Your task to perform on an android device: check google app version Image 0: 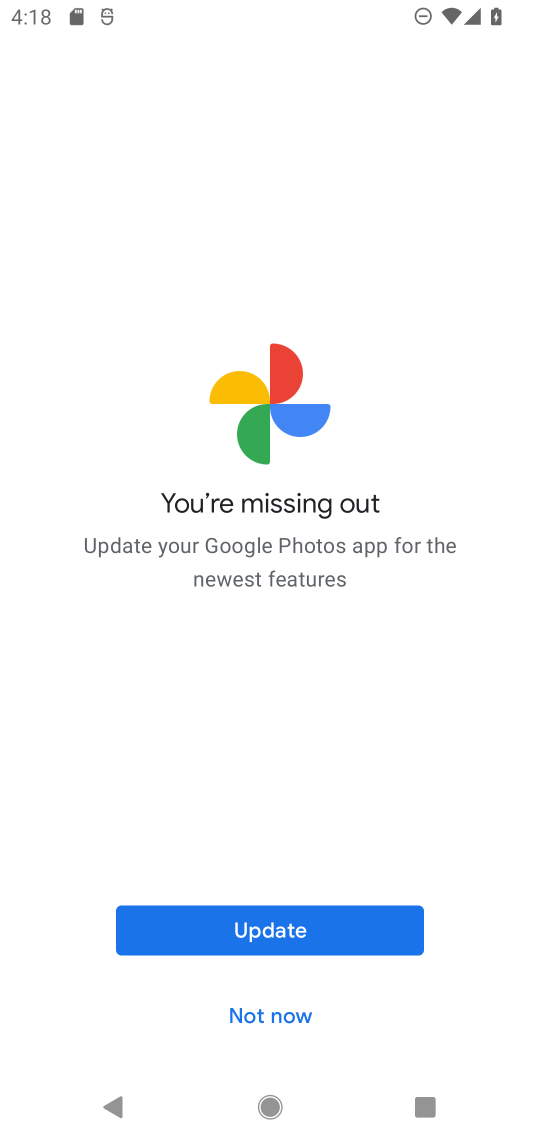
Step 0: press home button
Your task to perform on an android device: check google app version Image 1: 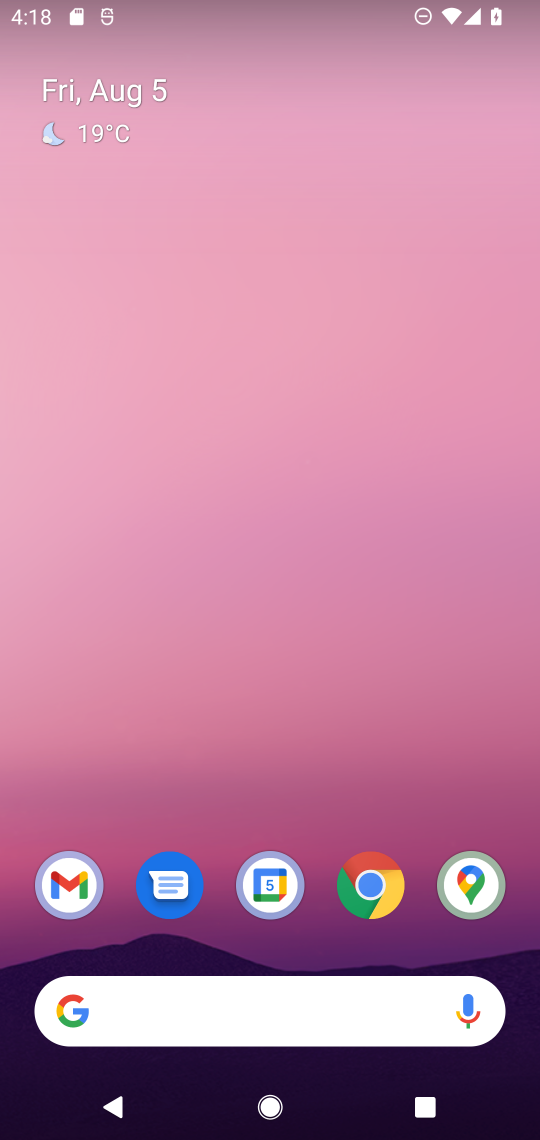
Step 1: drag from (312, 970) to (273, 72)
Your task to perform on an android device: check google app version Image 2: 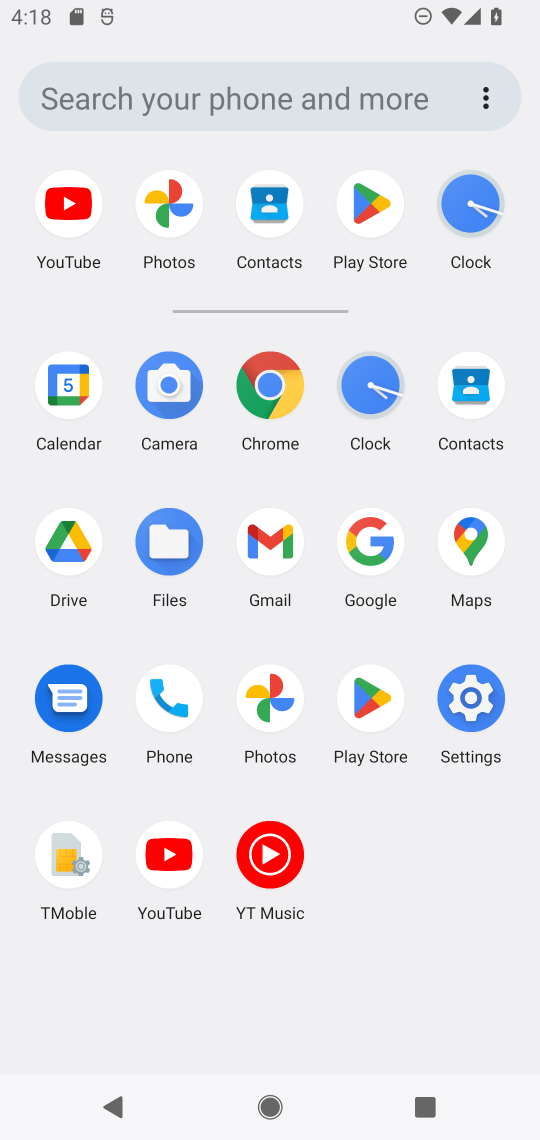
Step 2: click (368, 529)
Your task to perform on an android device: check google app version Image 3: 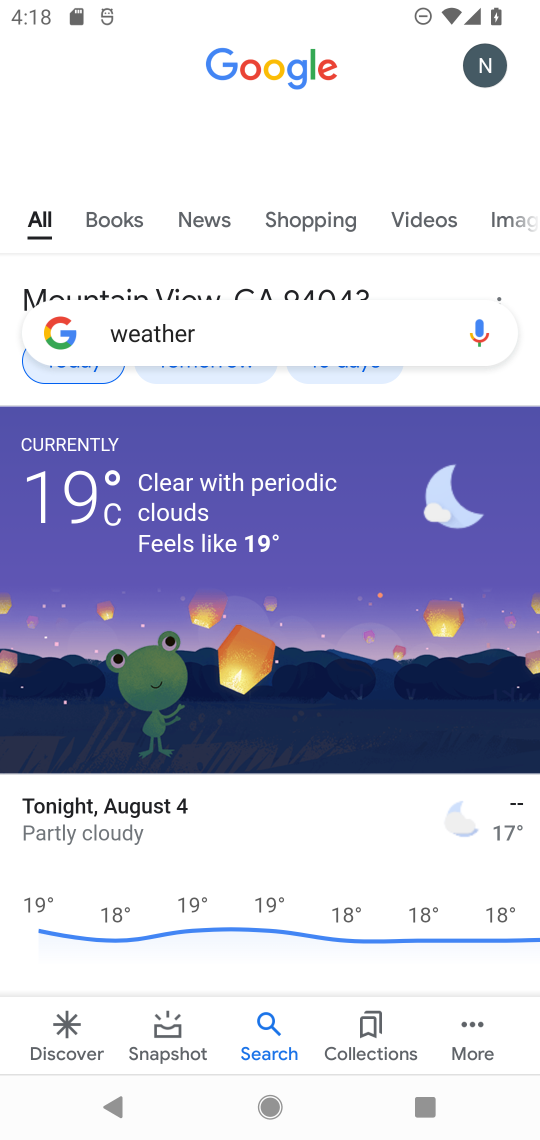
Step 3: click (466, 1022)
Your task to perform on an android device: check google app version Image 4: 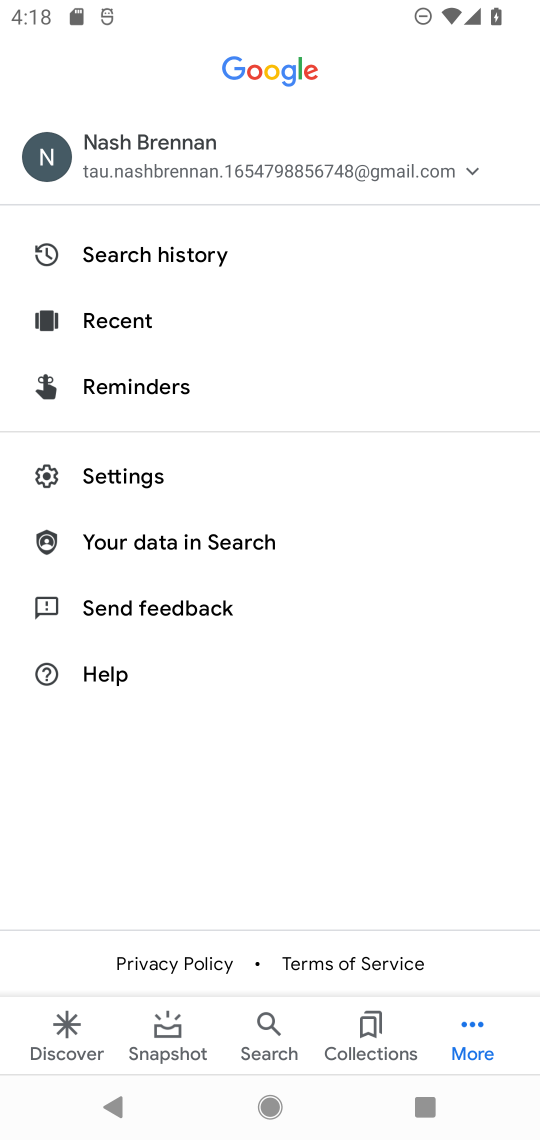
Step 4: click (138, 476)
Your task to perform on an android device: check google app version Image 5: 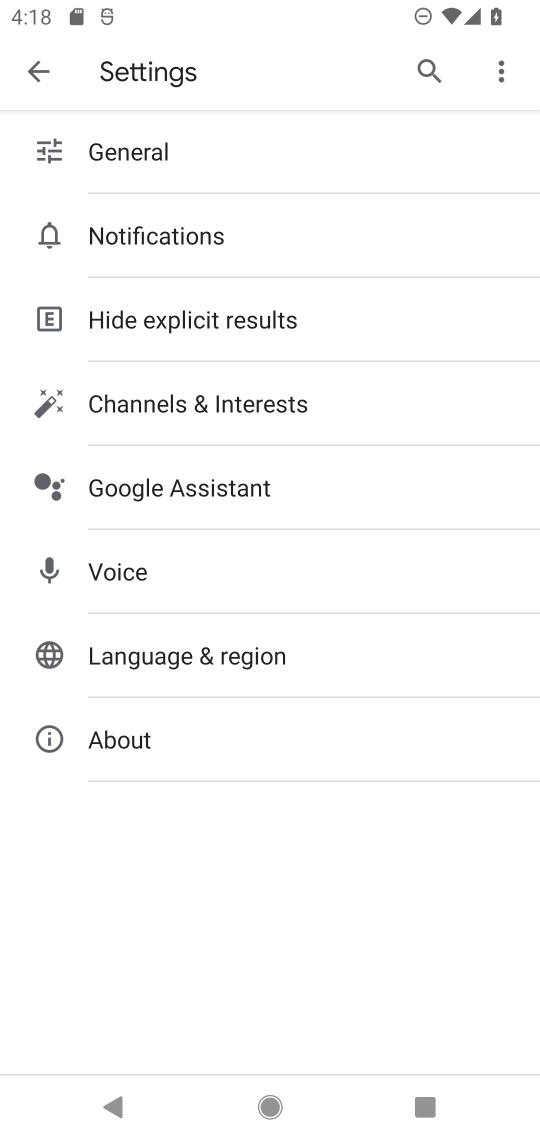
Step 5: click (127, 741)
Your task to perform on an android device: check google app version Image 6: 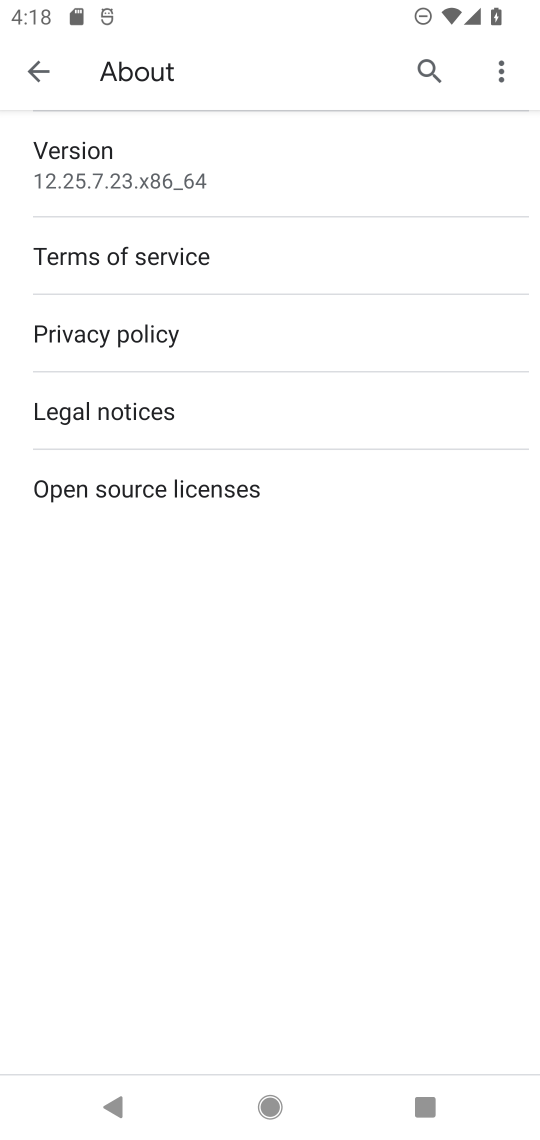
Step 6: task complete